Your task to perform on an android device: find photos in the google photos app Image 0: 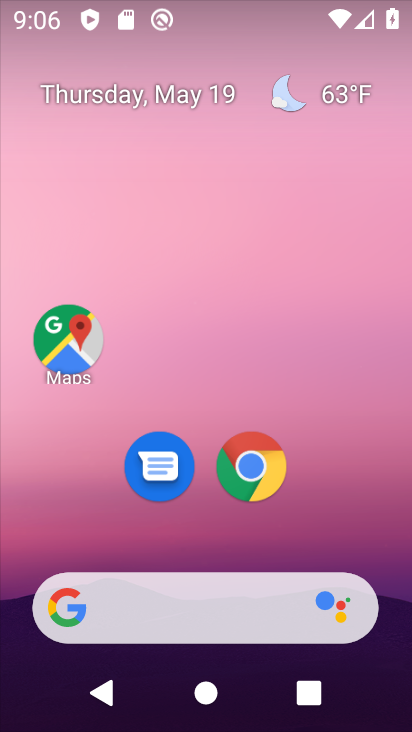
Step 0: drag from (405, 632) to (300, 72)
Your task to perform on an android device: find photos in the google photos app Image 1: 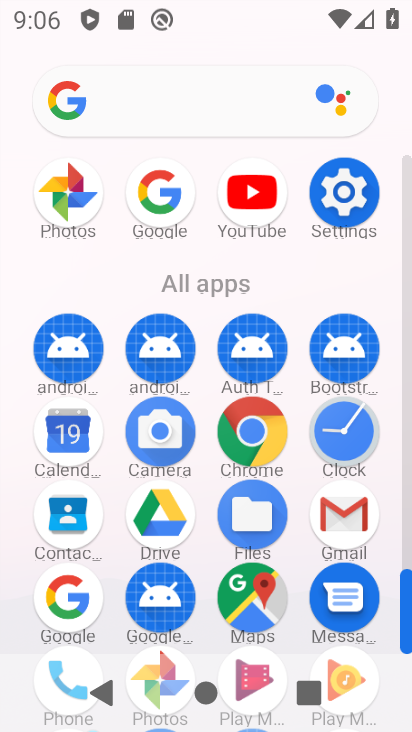
Step 1: drag from (293, 646) to (260, 276)
Your task to perform on an android device: find photos in the google photos app Image 2: 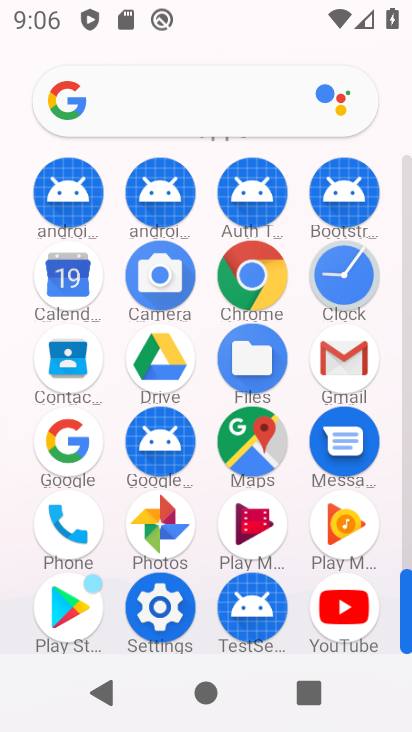
Step 2: click (130, 529)
Your task to perform on an android device: find photos in the google photos app Image 3: 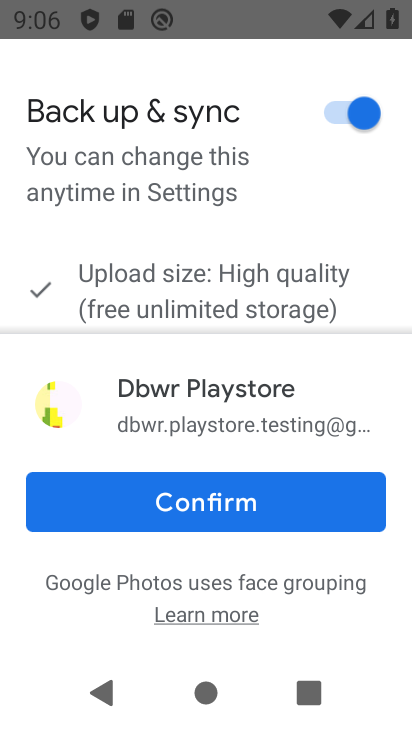
Step 3: click (189, 491)
Your task to perform on an android device: find photos in the google photos app Image 4: 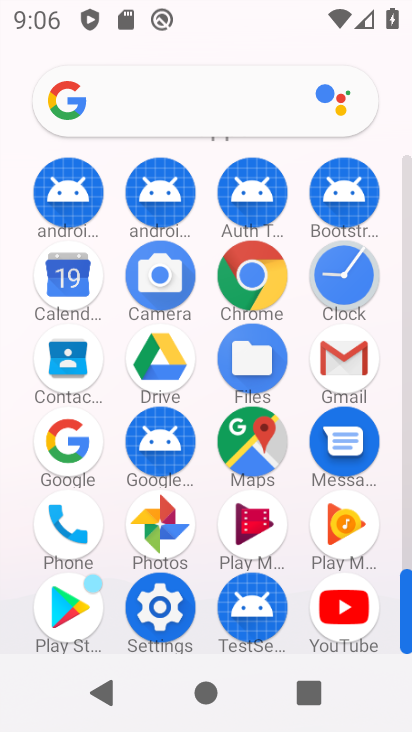
Step 4: click (180, 524)
Your task to perform on an android device: find photos in the google photos app Image 5: 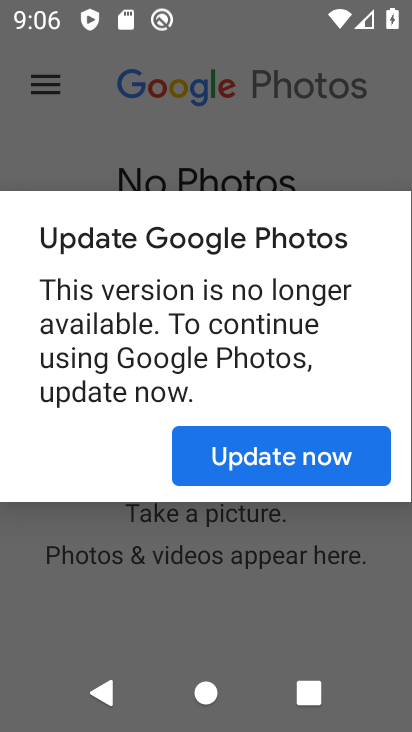
Step 5: click (247, 469)
Your task to perform on an android device: find photos in the google photos app Image 6: 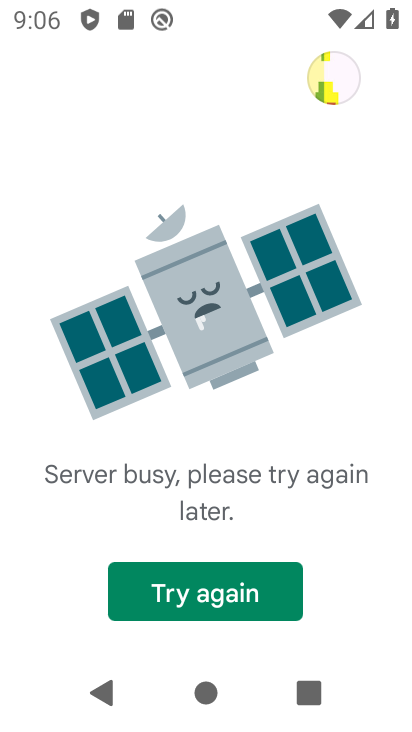
Step 6: task complete